Your task to perform on an android device: search for starred emails in the gmail app Image 0: 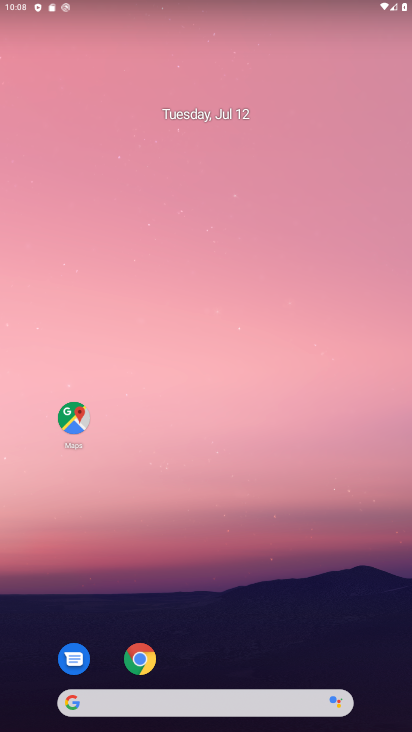
Step 0: drag from (212, 607) to (139, 42)
Your task to perform on an android device: search for starred emails in the gmail app Image 1: 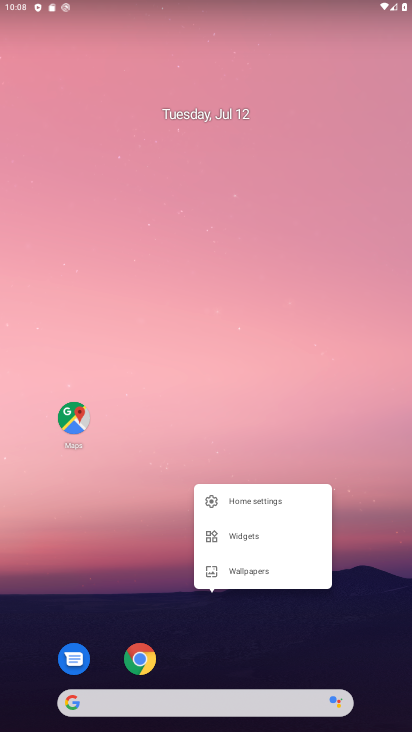
Step 1: click (208, 98)
Your task to perform on an android device: search for starred emails in the gmail app Image 2: 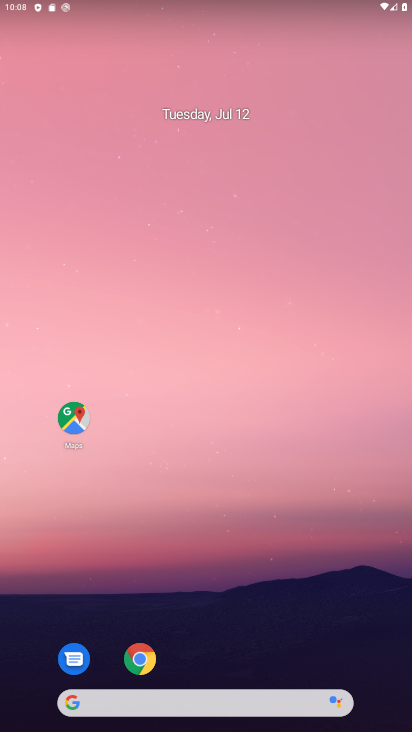
Step 2: drag from (184, 292) to (206, 80)
Your task to perform on an android device: search for starred emails in the gmail app Image 3: 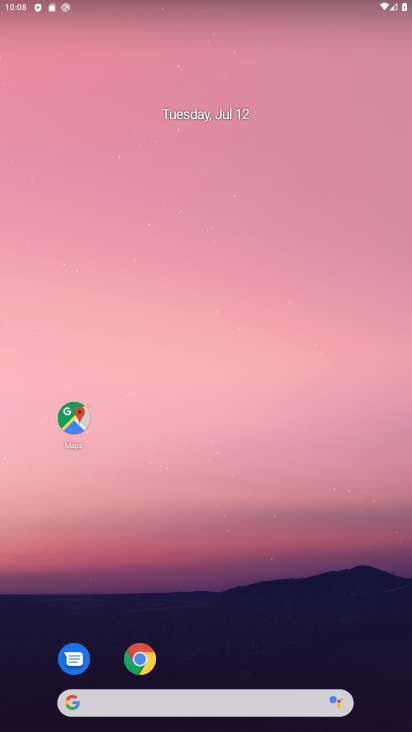
Step 3: drag from (176, 382) to (228, 105)
Your task to perform on an android device: search for starred emails in the gmail app Image 4: 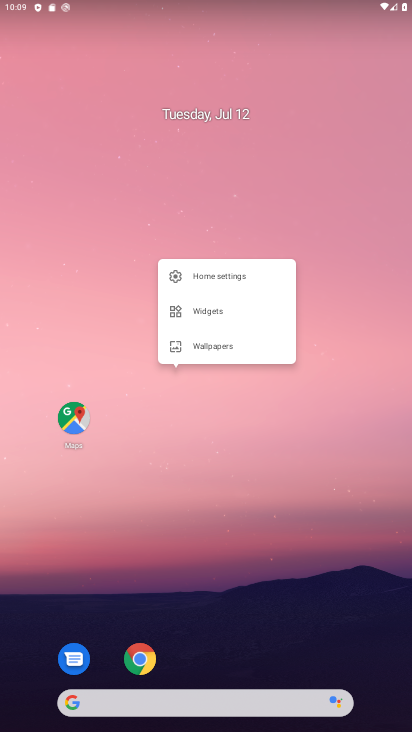
Step 4: click (212, 654)
Your task to perform on an android device: search for starred emails in the gmail app Image 5: 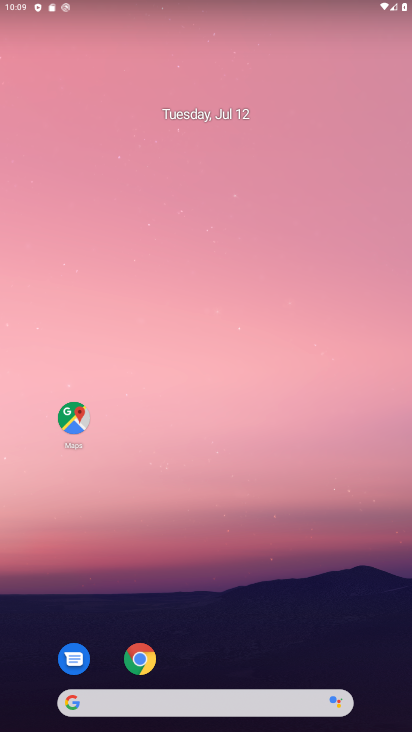
Step 5: drag from (217, 99) to (217, 10)
Your task to perform on an android device: search for starred emails in the gmail app Image 6: 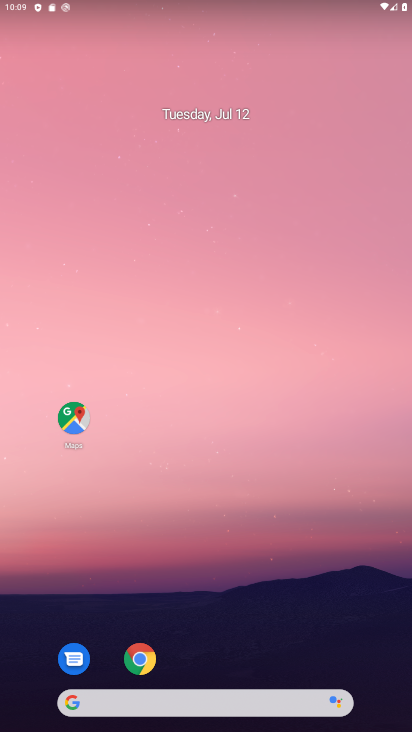
Step 6: drag from (201, 40) to (207, 93)
Your task to perform on an android device: search for starred emails in the gmail app Image 7: 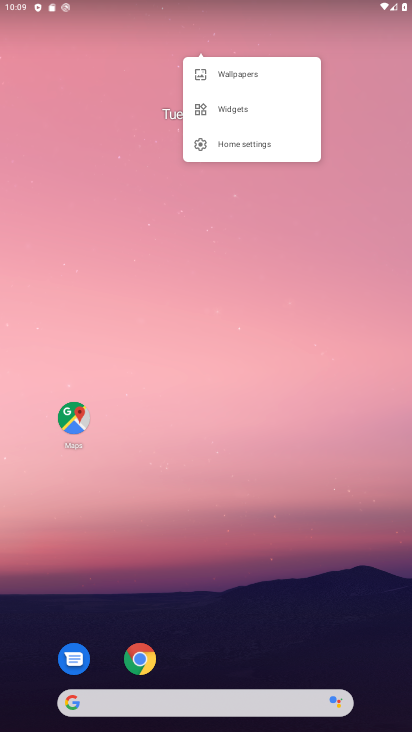
Step 7: click (206, 635)
Your task to perform on an android device: search for starred emails in the gmail app Image 8: 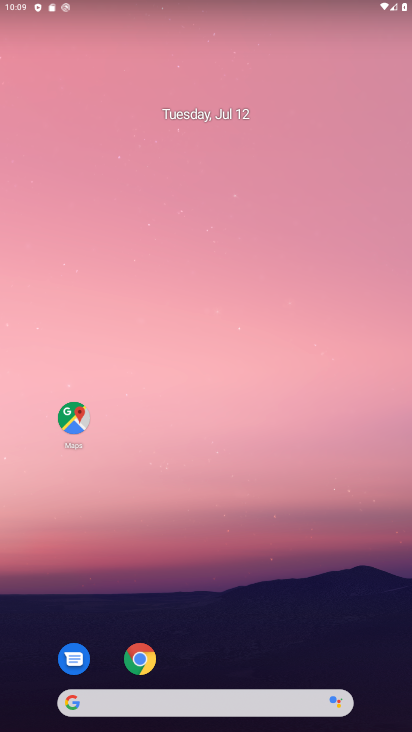
Step 8: drag from (195, 648) to (196, 74)
Your task to perform on an android device: search for starred emails in the gmail app Image 9: 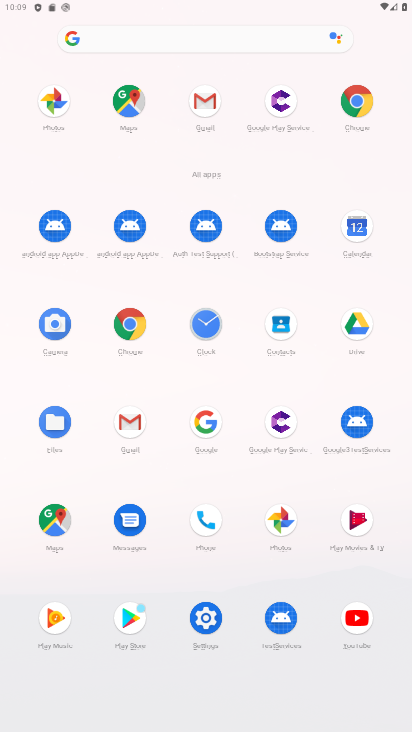
Step 9: click (197, 119)
Your task to perform on an android device: search for starred emails in the gmail app Image 10: 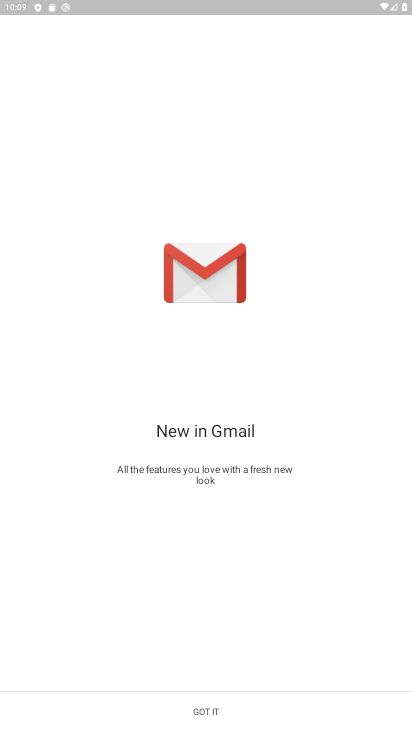
Step 10: click (194, 706)
Your task to perform on an android device: search for starred emails in the gmail app Image 11: 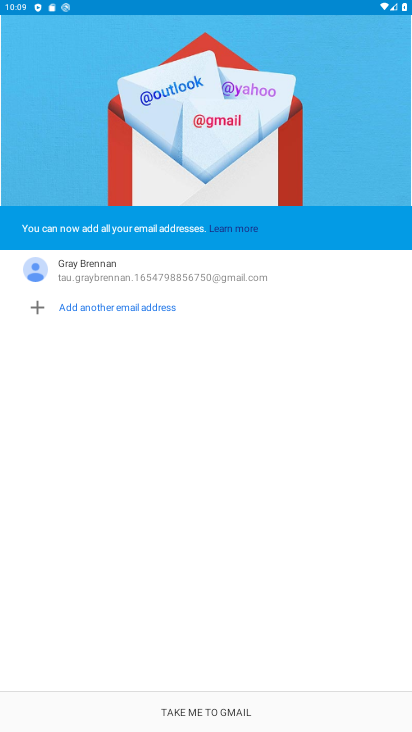
Step 11: click (194, 706)
Your task to perform on an android device: search for starred emails in the gmail app Image 12: 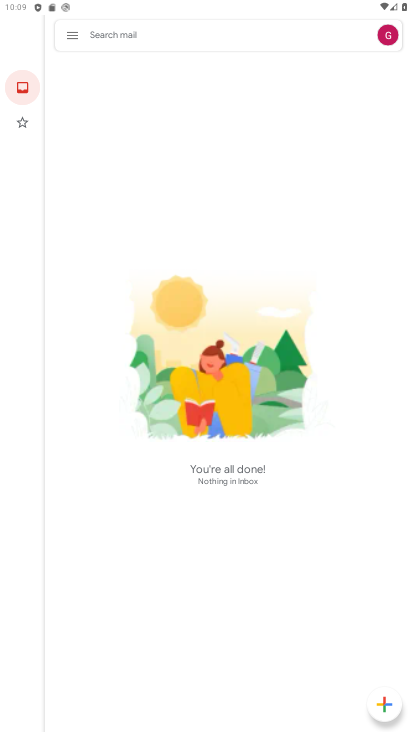
Step 12: click (70, 30)
Your task to perform on an android device: search for starred emails in the gmail app Image 13: 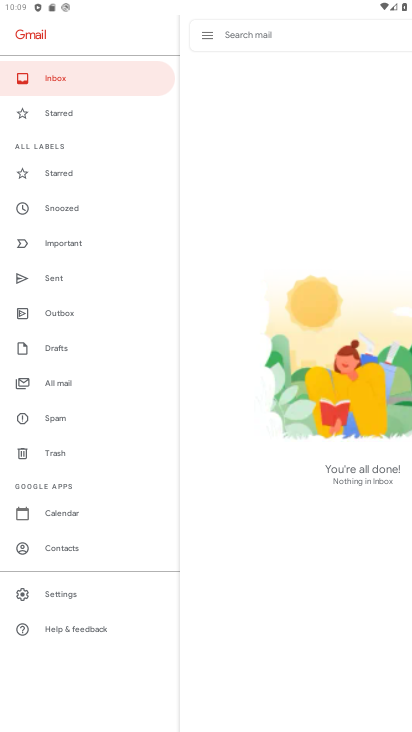
Step 13: click (48, 174)
Your task to perform on an android device: search for starred emails in the gmail app Image 14: 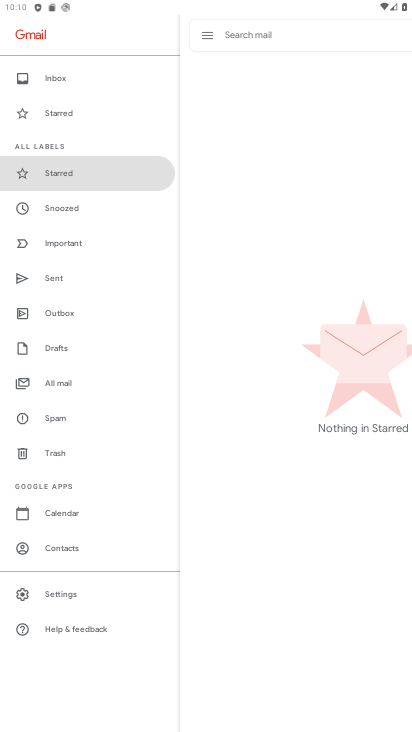
Step 14: task complete